Your task to perform on an android device: turn on location history Image 0: 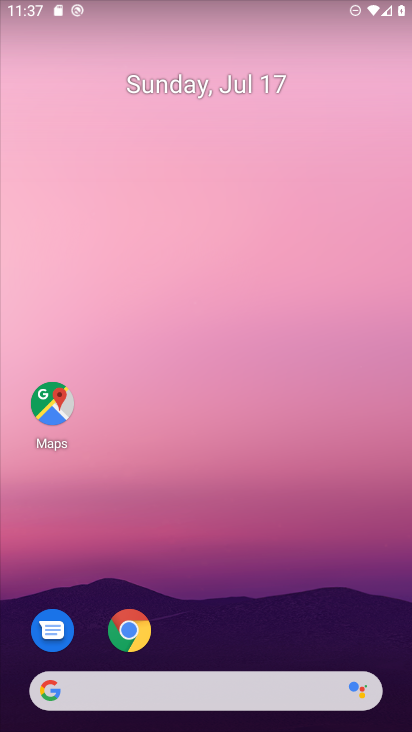
Step 0: drag from (220, 651) to (205, 52)
Your task to perform on an android device: turn on location history Image 1: 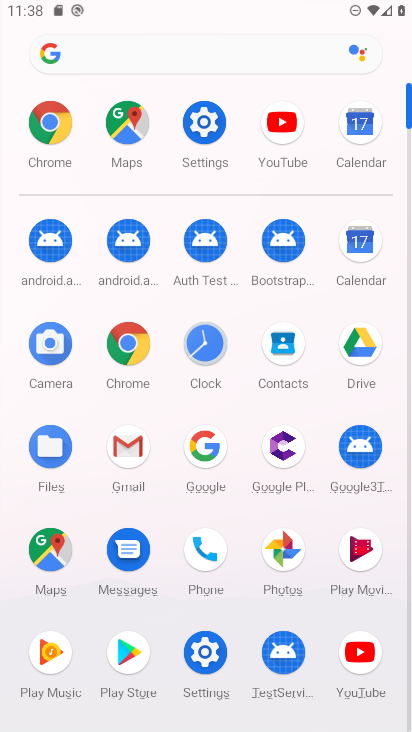
Step 1: click (197, 119)
Your task to perform on an android device: turn on location history Image 2: 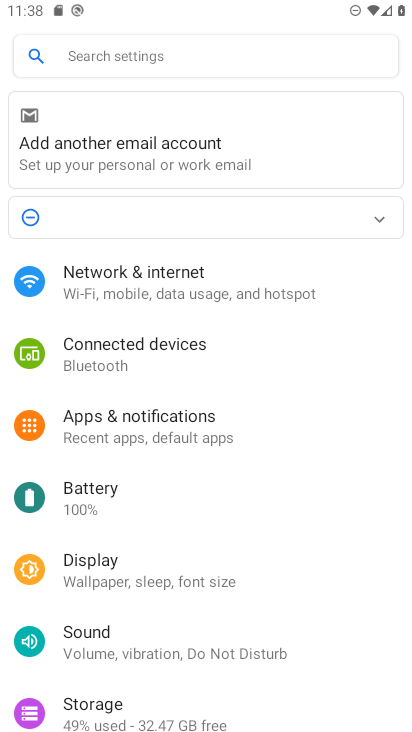
Step 2: drag from (140, 625) to (143, 327)
Your task to perform on an android device: turn on location history Image 3: 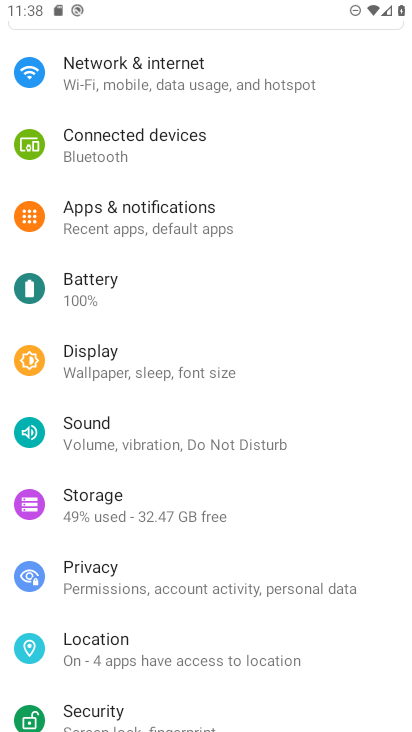
Step 3: click (132, 651)
Your task to perform on an android device: turn on location history Image 4: 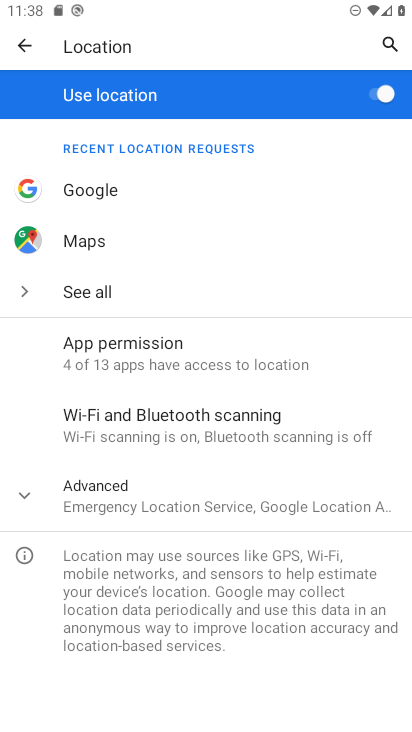
Step 4: click (130, 488)
Your task to perform on an android device: turn on location history Image 5: 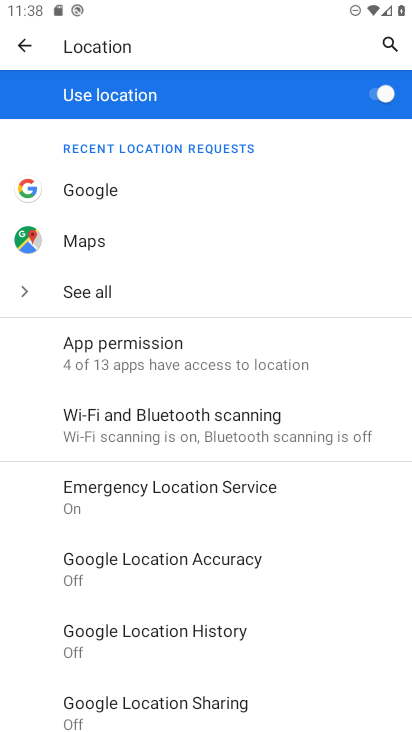
Step 5: click (203, 634)
Your task to perform on an android device: turn on location history Image 6: 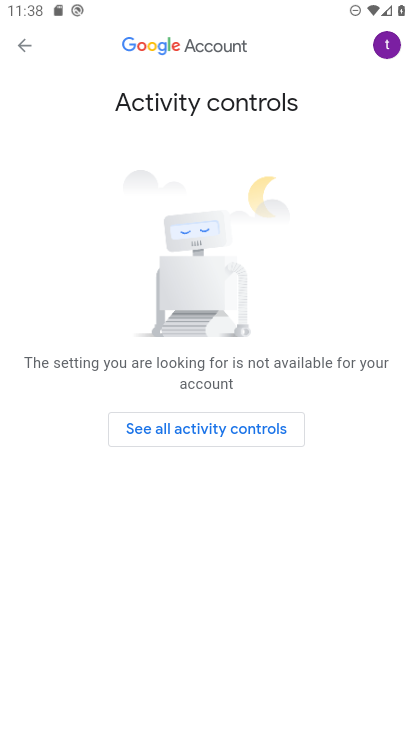
Step 6: click (239, 421)
Your task to perform on an android device: turn on location history Image 7: 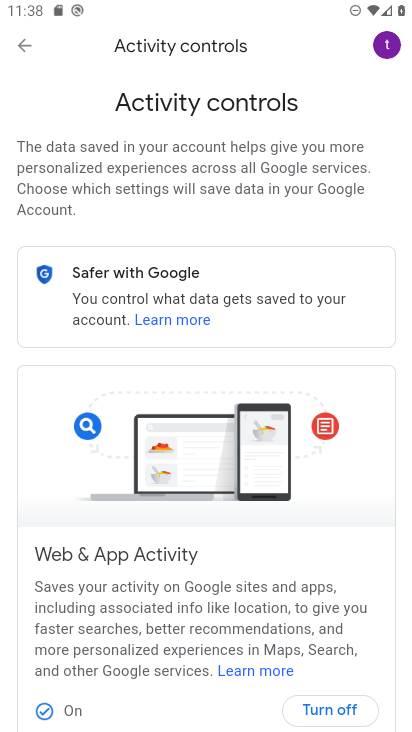
Step 7: task complete